Your task to perform on an android device: make emails show in primary in the gmail app Image 0: 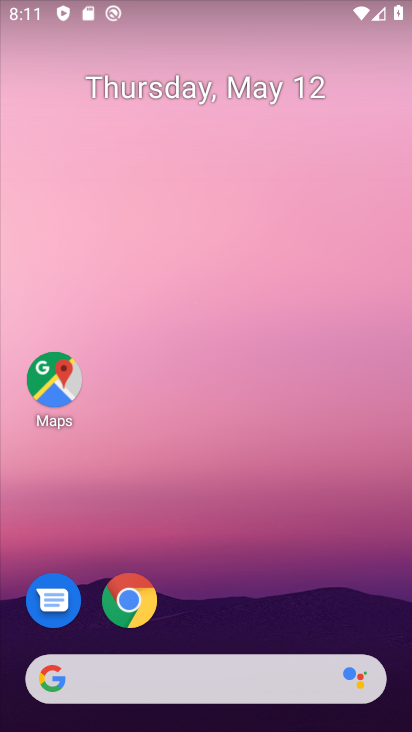
Step 0: drag from (307, 543) to (327, 0)
Your task to perform on an android device: make emails show in primary in the gmail app Image 1: 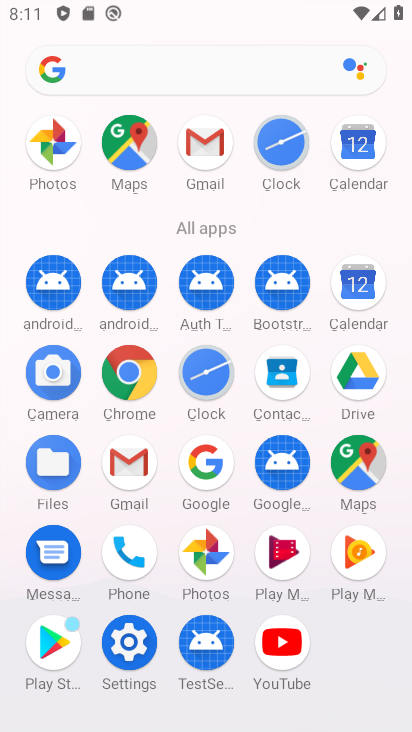
Step 1: click (210, 122)
Your task to perform on an android device: make emails show in primary in the gmail app Image 2: 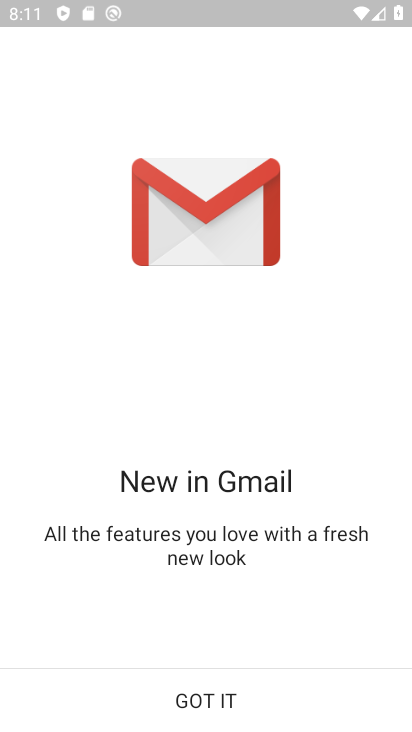
Step 2: click (176, 694)
Your task to perform on an android device: make emails show in primary in the gmail app Image 3: 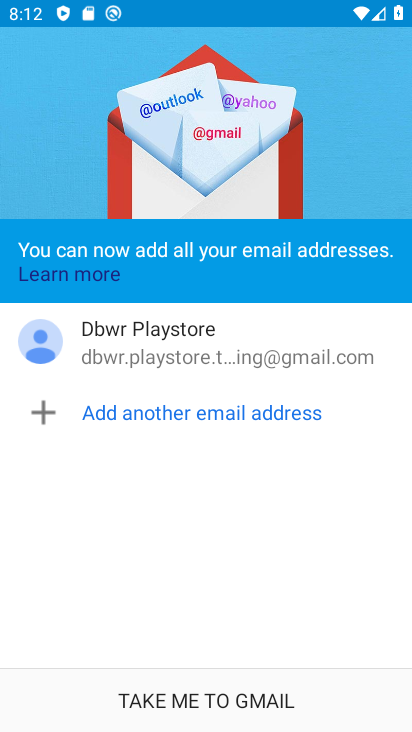
Step 3: click (217, 710)
Your task to perform on an android device: make emails show in primary in the gmail app Image 4: 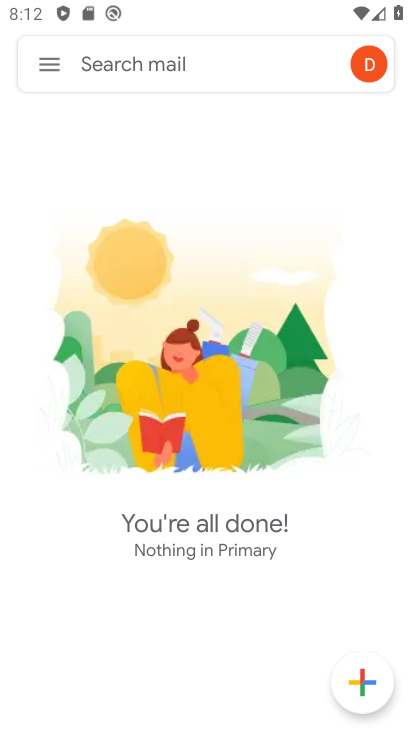
Step 4: click (47, 63)
Your task to perform on an android device: make emails show in primary in the gmail app Image 5: 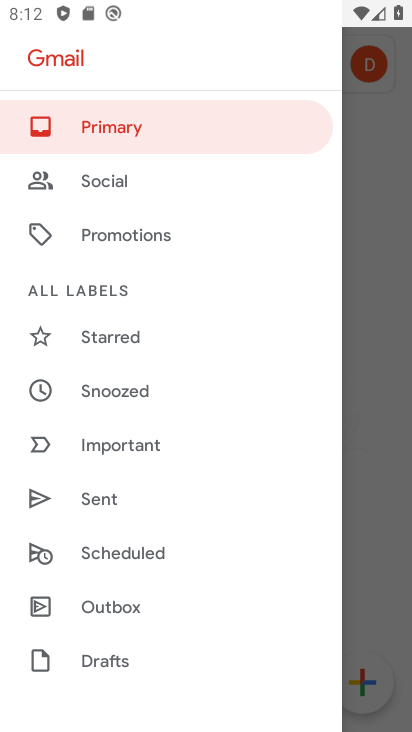
Step 5: drag from (138, 622) to (148, 261)
Your task to perform on an android device: make emails show in primary in the gmail app Image 6: 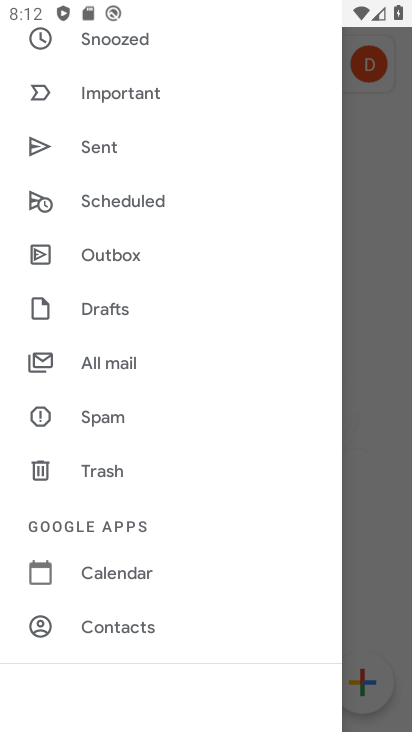
Step 6: drag from (186, 617) to (143, 309)
Your task to perform on an android device: make emails show in primary in the gmail app Image 7: 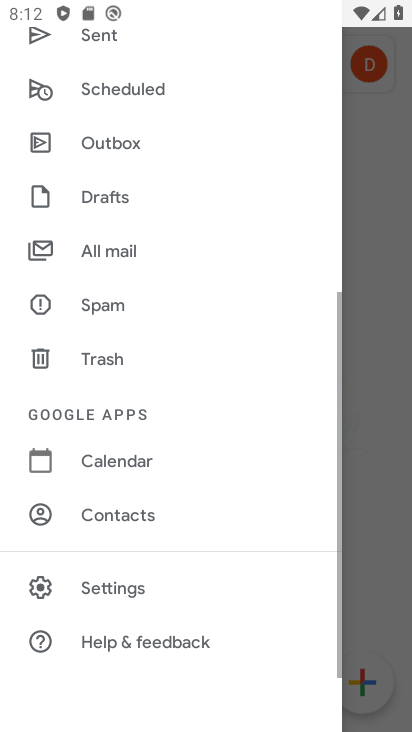
Step 7: drag from (178, 545) to (180, 283)
Your task to perform on an android device: make emails show in primary in the gmail app Image 8: 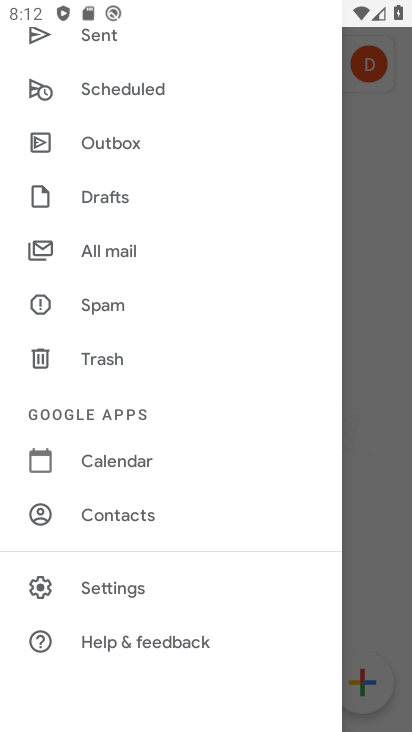
Step 8: click (93, 594)
Your task to perform on an android device: make emails show in primary in the gmail app Image 9: 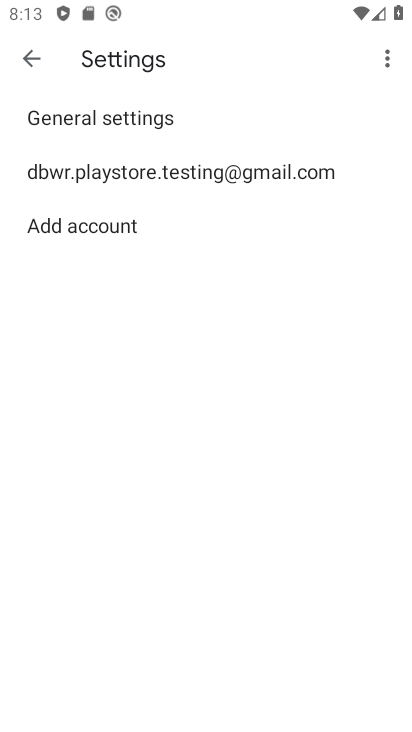
Step 9: click (141, 172)
Your task to perform on an android device: make emails show in primary in the gmail app Image 10: 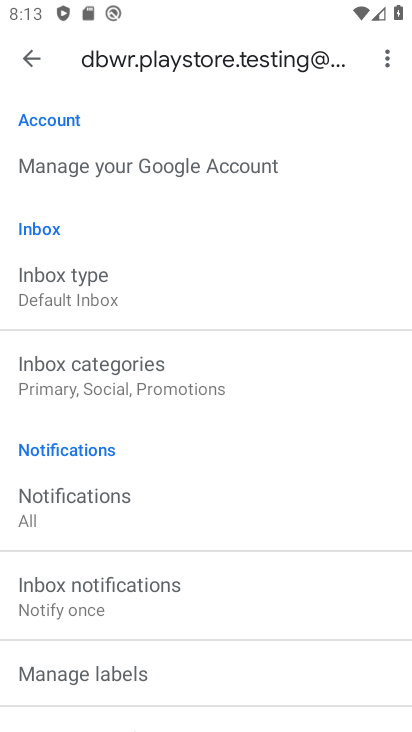
Step 10: click (64, 291)
Your task to perform on an android device: make emails show in primary in the gmail app Image 11: 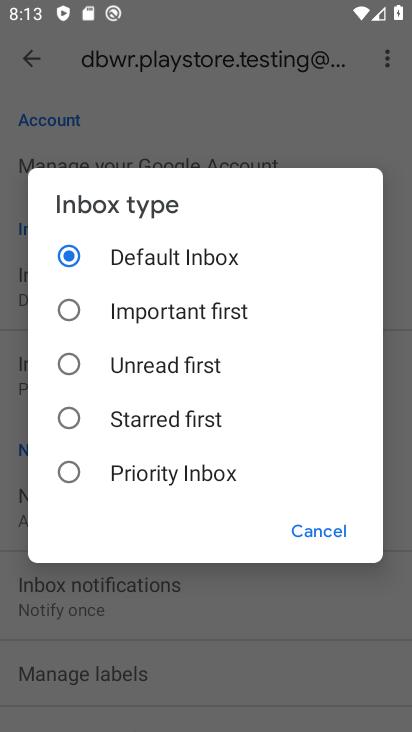
Step 11: task complete